Your task to perform on an android device: Go to wifi settings Image 0: 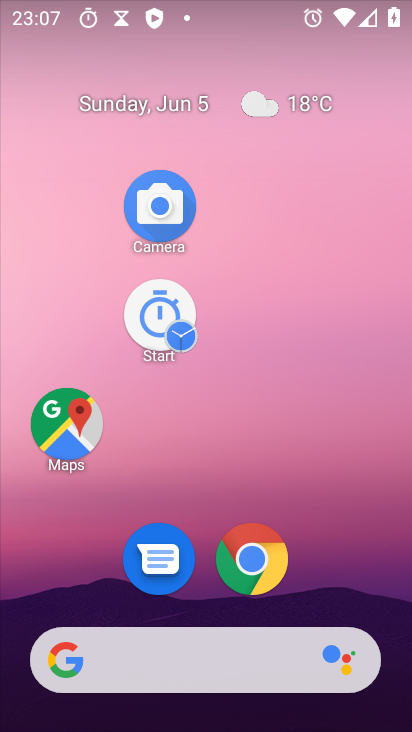
Step 0: drag from (252, 433) to (226, 72)
Your task to perform on an android device: Go to wifi settings Image 1: 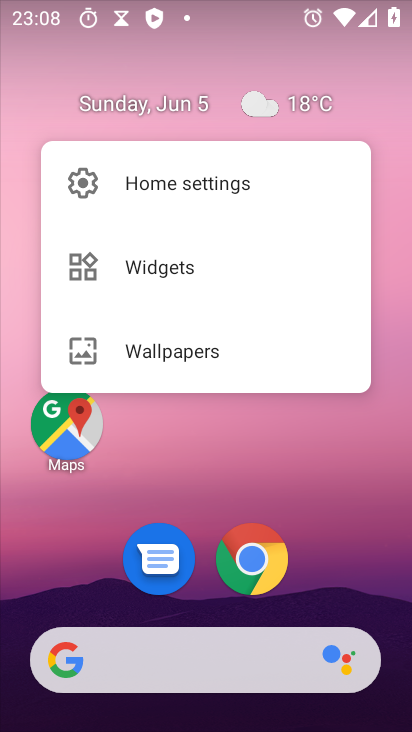
Step 1: drag from (310, 678) to (208, 31)
Your task to perform on an android device: Go to wifi settings Image 2: 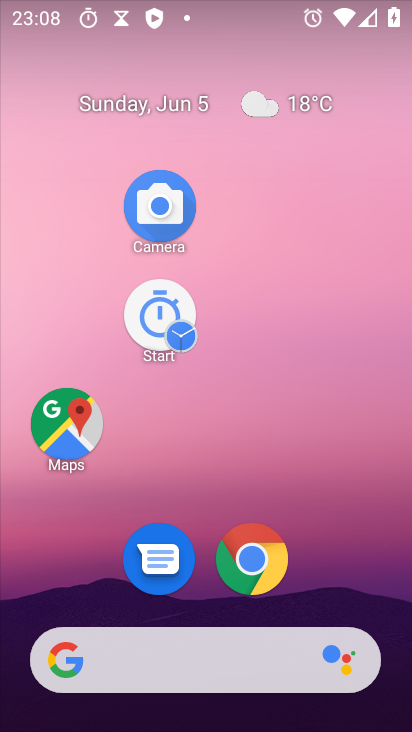
Step 2: drag from (245, 343) to (203, 62)
Your task to perform on an android device: Go to wifi settings Image 3: 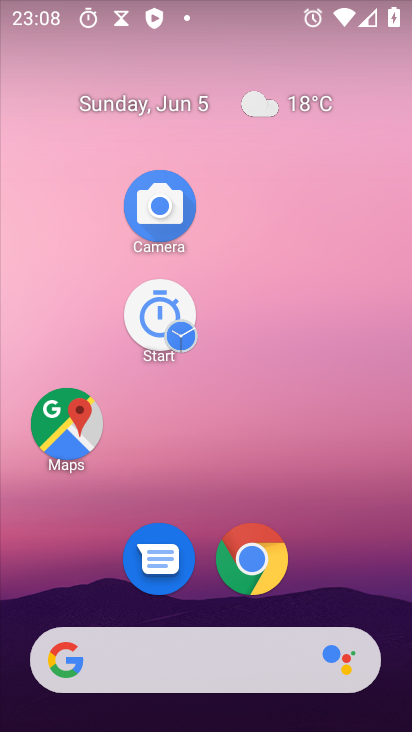
Step 3: drag from (263, 440) to (204, 76)
Your task to perform on an android device: Go to wifi settings Image 4: 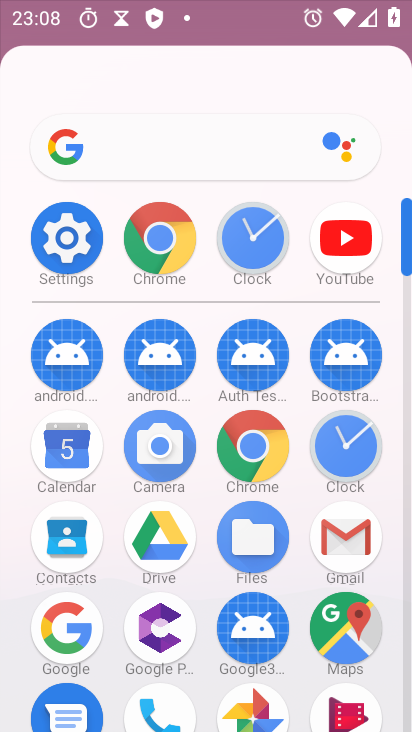
Step 4: drag from (193, 479) to (101, 67)
Your task to perform on an android device: Go to wifi settings Image 5: 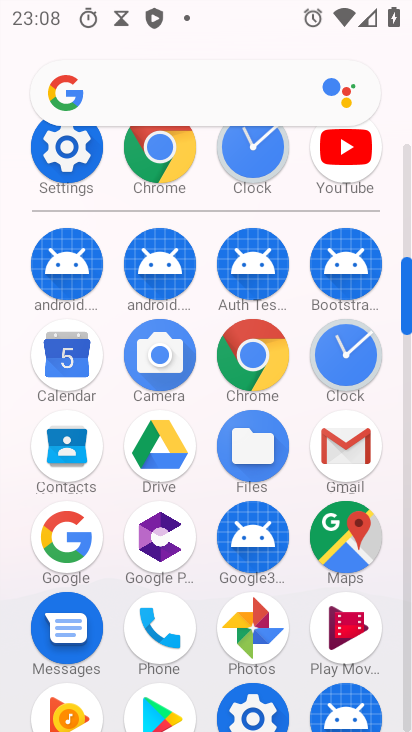
Step 5: click (64, 165)
Your task to perform on an android device: Go to wifi settings Image 6: 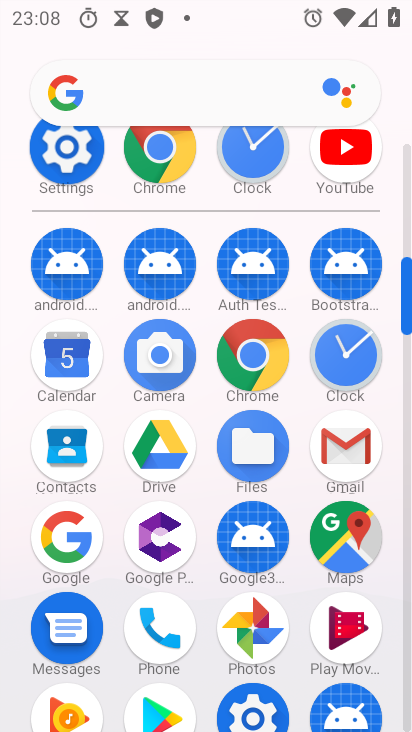
Step 6: click (71, 167)
Your task to perform on an android device: Go to wifi settings Image 7: 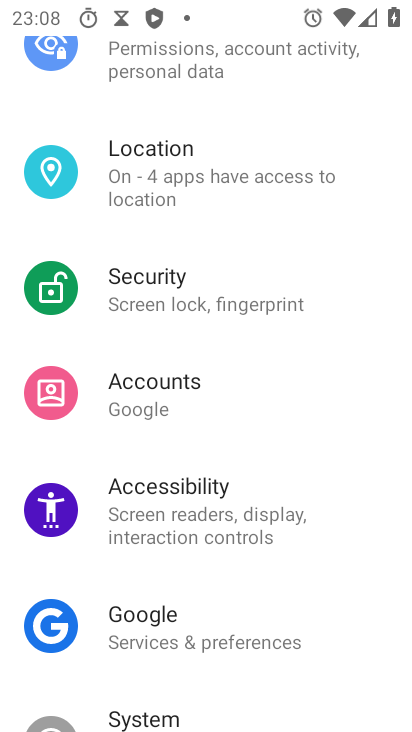
Step 7: drag from (233, 232) to (143, 539)
Your task to perform on an android device: Go to wifi settings Image 8: 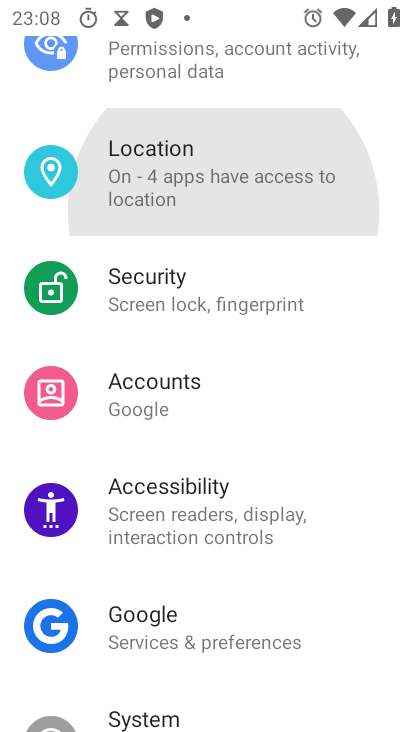
Step 8: drag from (174, 276) to (37, 713)
Your task to perform on an android device: Go to wifi settings Image 9: 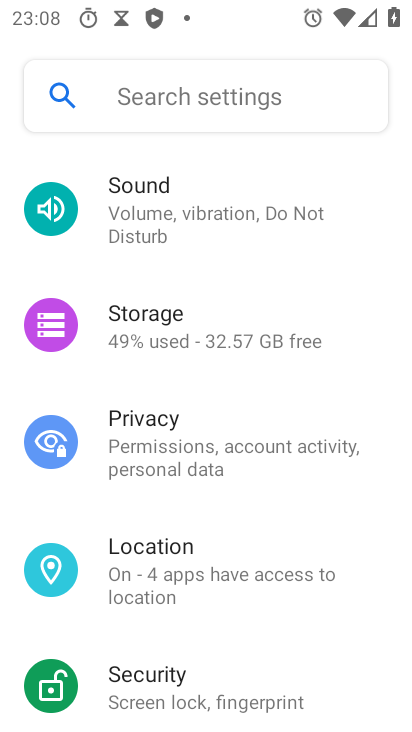
Step 9: drag from (203, 268) to (147, 524)
Your task to perform on an android device: Go to wifi settings Image 10: 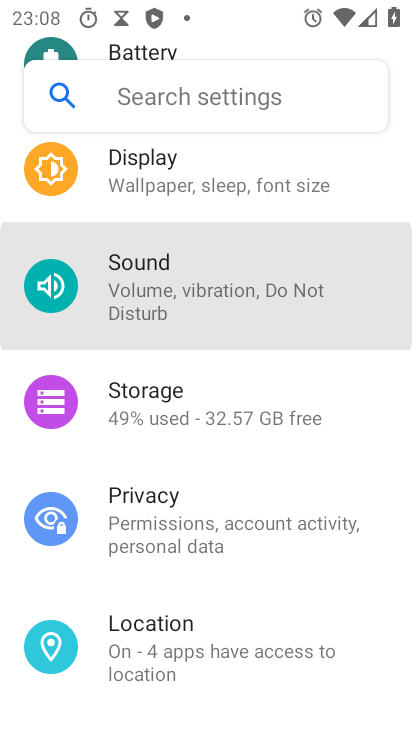
Step 10: drag from (174, 343) to (155, 478)
Your task to perform on an android device: Go to wifi settings Image 11: 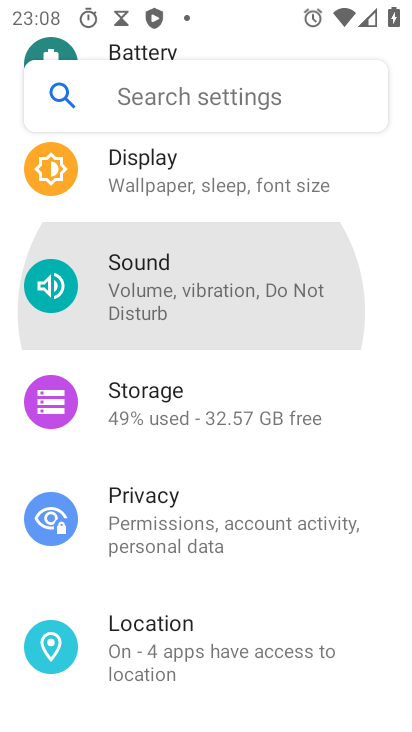
Step 11: drag from (139, 217) to (113, 530)
Your task to perform on an android device: Go to wifi settings Image 12: 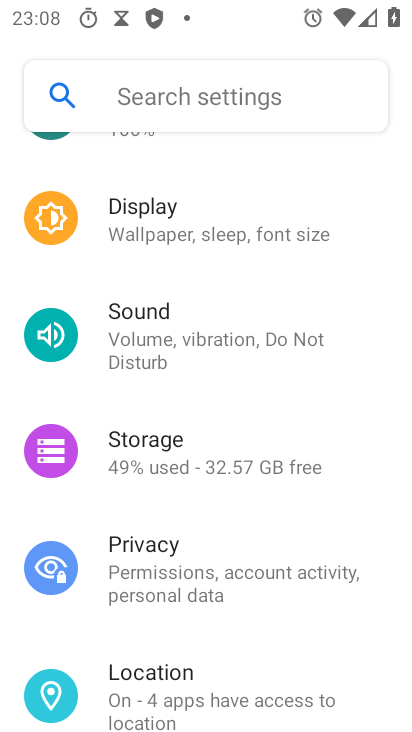
Step 12: drag from (176, 213) to (111, 558)
Your task to perform on an android device: Go to wifi settings Image 13: 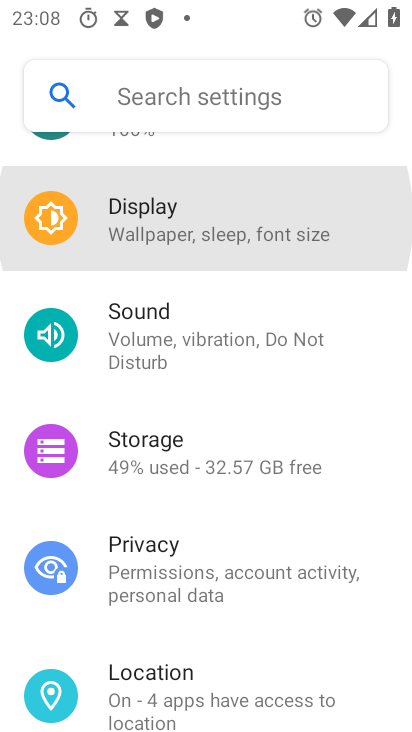
Step 13: drag from (169, 257) to (169, 523)
Your task to perform on an android device: Go to wifi settings Image 14: 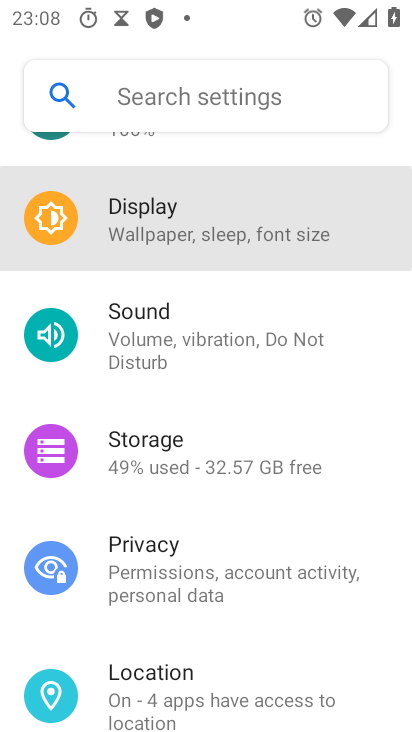
Step 14: drag from (176, 458) to (153, 670)
Your task to perform on an android device: Go to wifi settings Image 15: 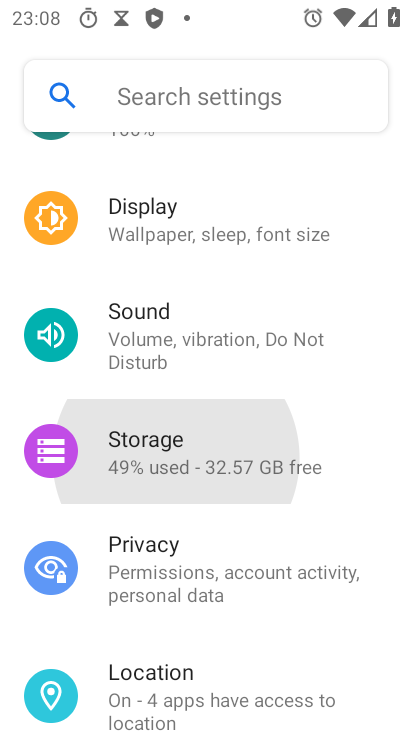
Step 15: drag from (186, 396) to (187, 683)
Your task to perform on an android device: Go to wifi settings Image 16: 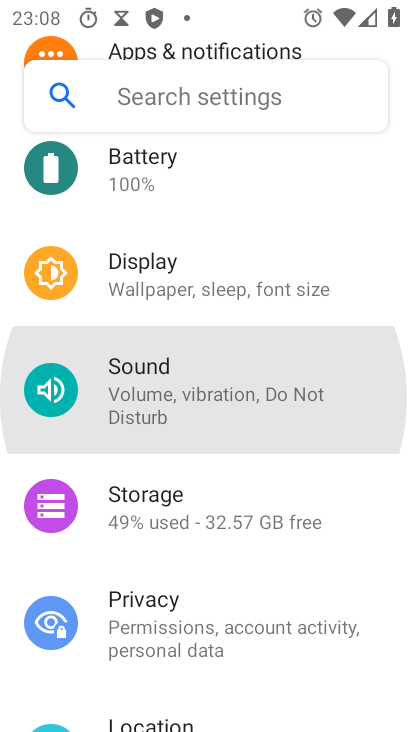
Step 16: drag from (251, 312) to (220, 660)
Your task to perform on an android device: Go to wifi settings Image 17: 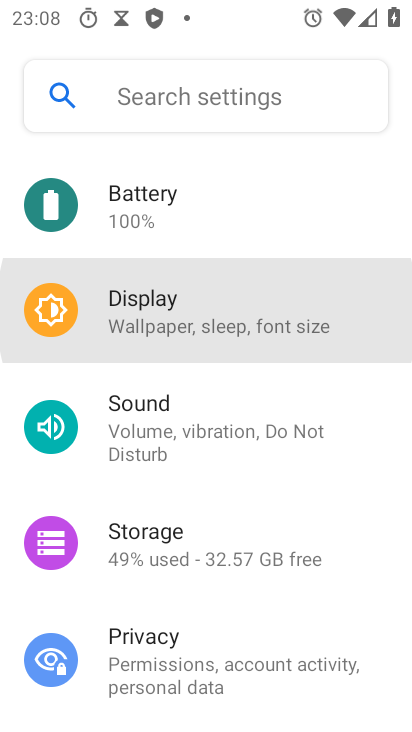
Step 17: drag from (311, 220) to (218, 535)
Your task to perform on an android device: Go to wifi settings Image 18: 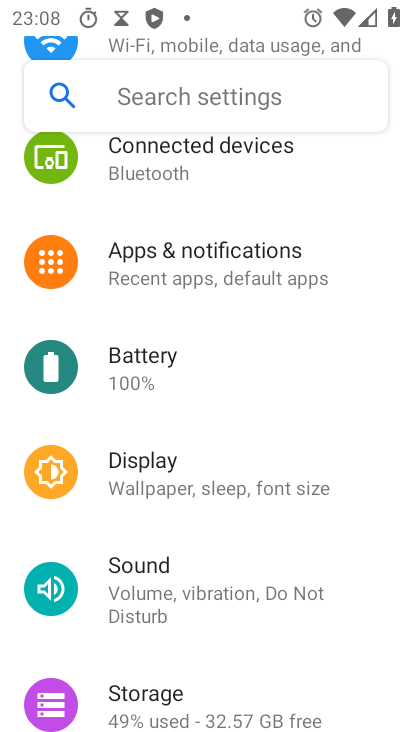
Step 18: drag from (215, 212) to (189, 545)
Your task to perform on an android device: Go to wifi settings Image 19: 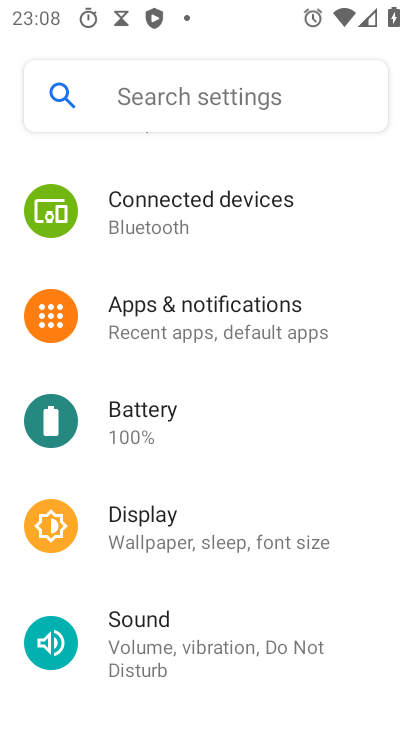
Step 19: drag from (212, 261) to (236, 584)
Your task to perform on an android device: Go to wifi settings Image 20: 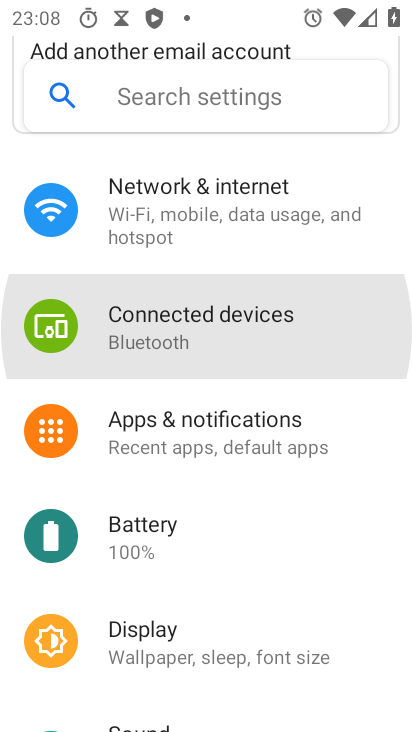
Step 20: drag from (236, 163) to (177, 618)
Your task to perform on an android device: Go to wifi settings Image 21: 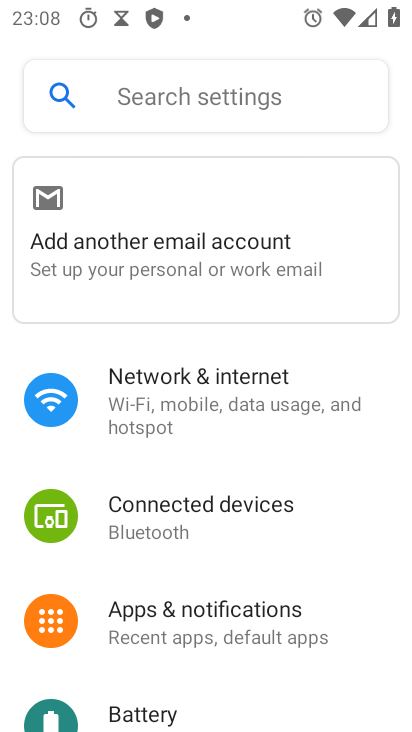
Step 21: click (218, 370)
Your task to perform on an android device: Go to wifi settings Image 22: 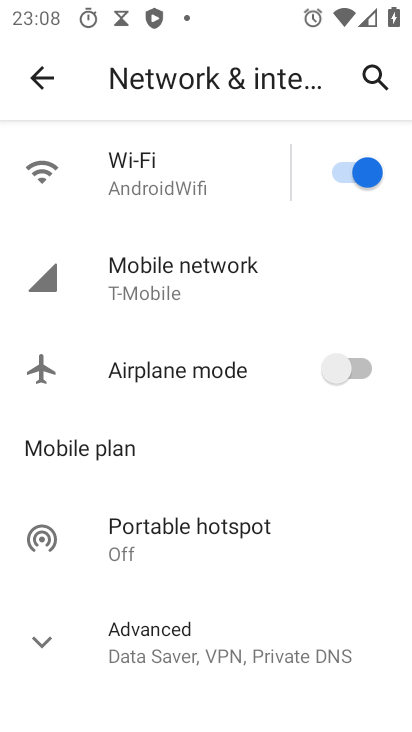
Step 22: task complete